Your task to perform on an android device: Open network settings Image 0: 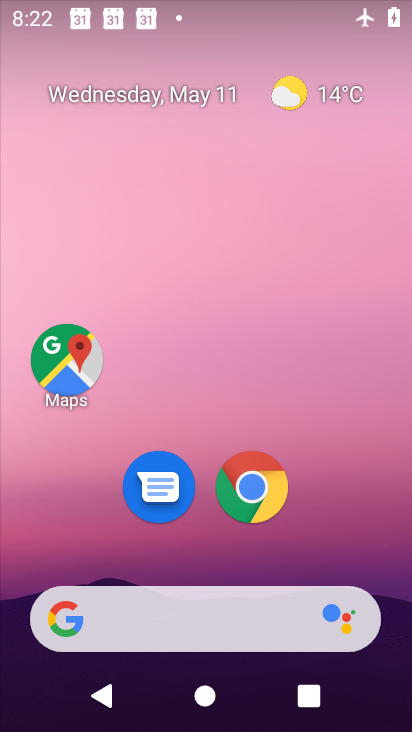
Step 0: drag from (219, 724) to (227, 127)
Your task to perform on an android device: Open network settings Image 1: 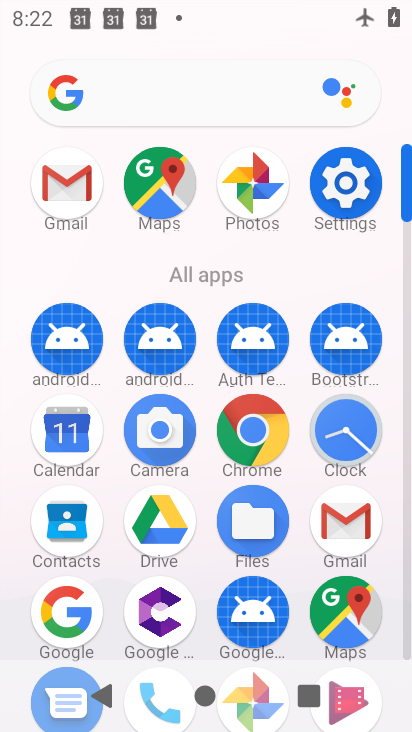
Step 1: click (355, 183)
Your task to perform on an android device: Open network settings Image 2: 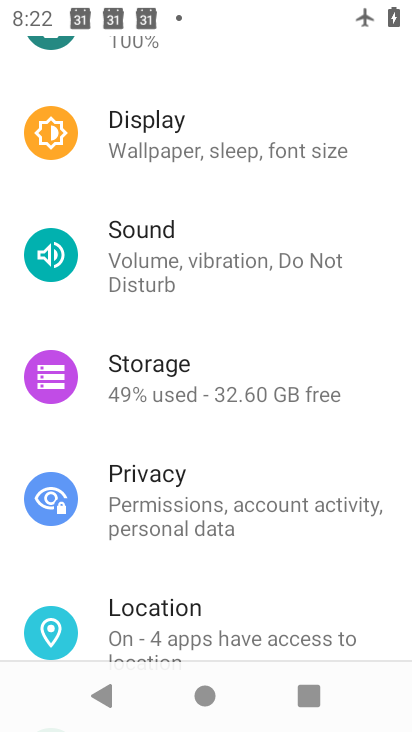
Step 2: drag from (280, 114) to (299, 502)
Your task to perform on an android device: Open network settings Image 3: 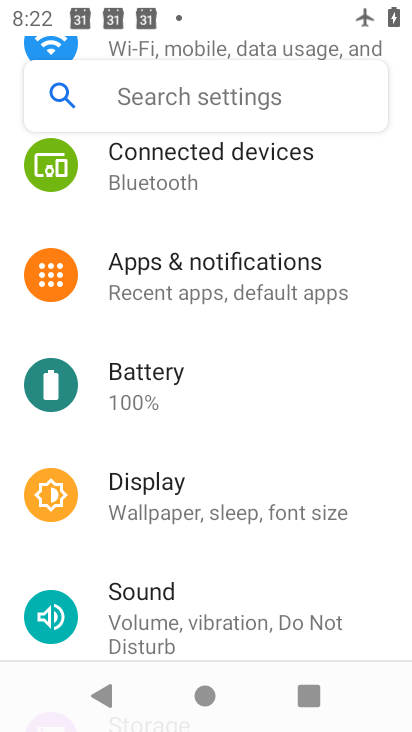
Step 3: drag from (297, 191) to (277, 530)
Your task to perform on an android device: Open network settings Image 4: 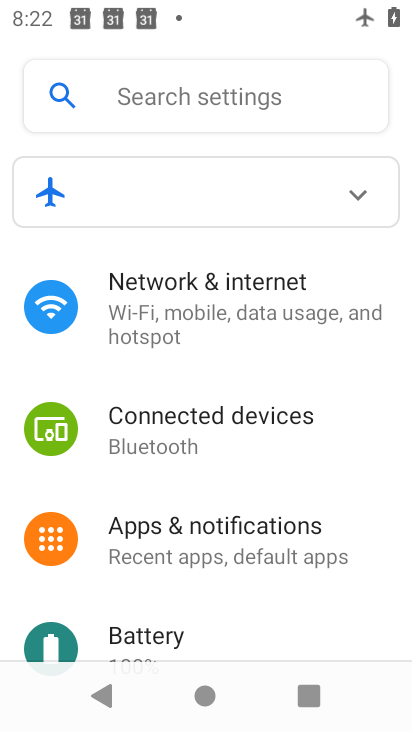
Step 4: click (219, 304)
Your task to perform on an android device: Open network settings Image 5: 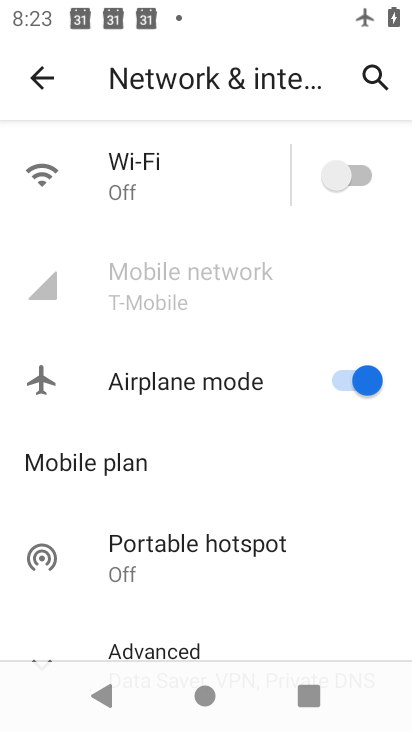
Step 5: click (225, 267)
Your task to perform on an android device: Open network settings Image 6: 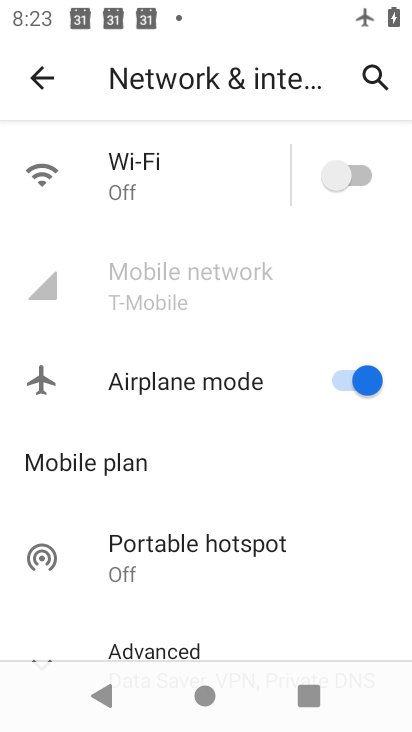
Step 6: click (347, 368)
Your task to perform on an android device: Open network settings Image 7: 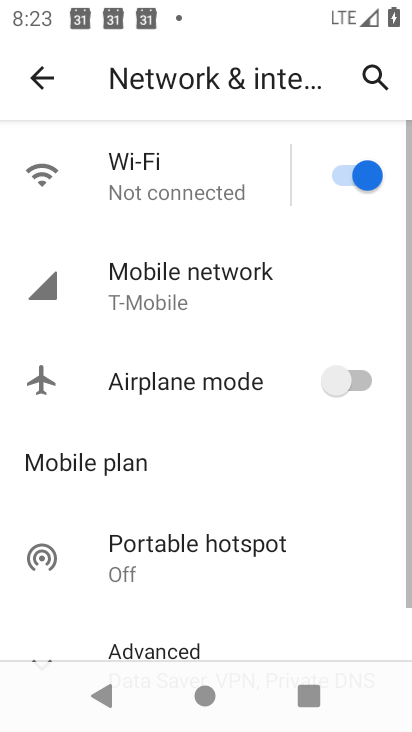
Step 7: click (222, 287)
Your task to perform on an android device: Open network settings Image 8: 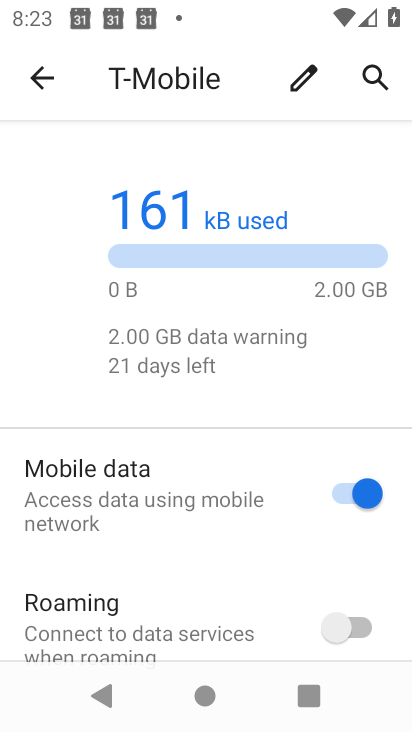
Step 8: task complete